Your task to perform on an android device: Go to calendar. Show me events next week Image 0: 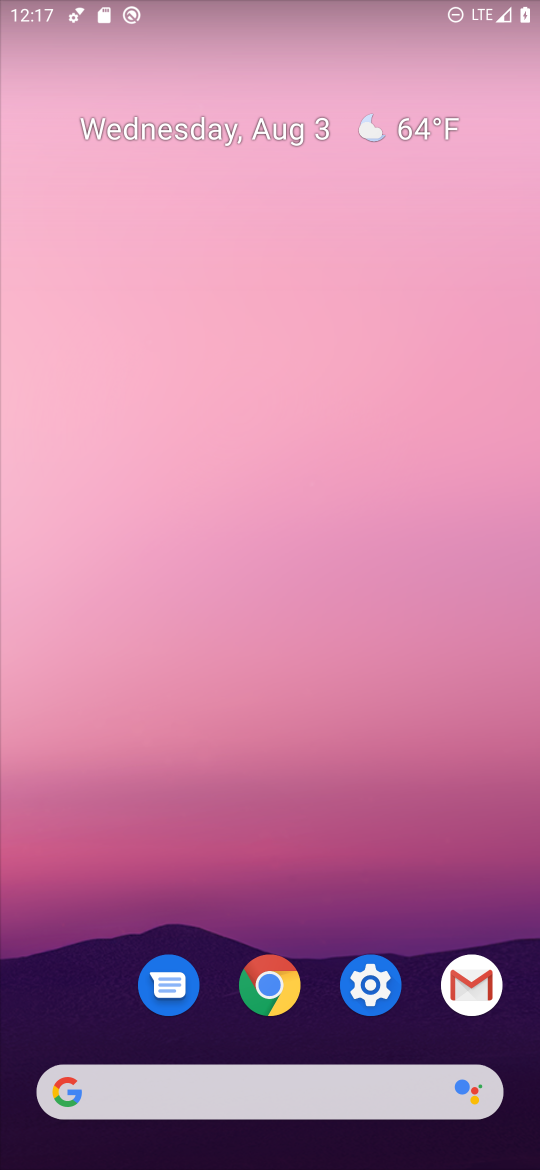
Step 0: press home button
Your task to perform on an android device: Go to calendar. Show me events next week Image 1: 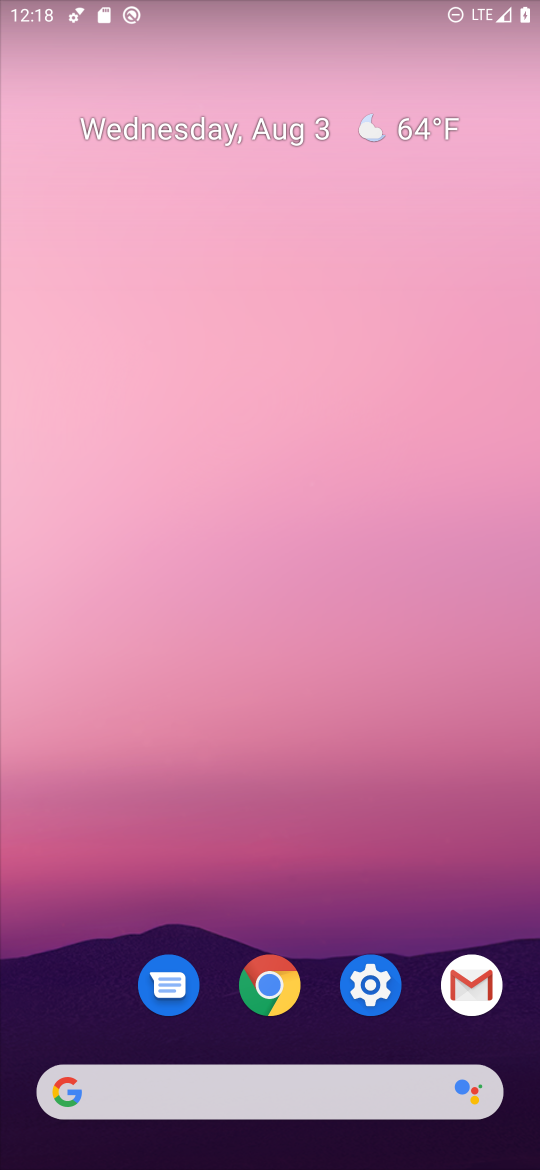
Step 1: drag from (350, 1122) to (334, 321)
Your task to perform on an android device: Go to calendar. Show me events next week Image 2: 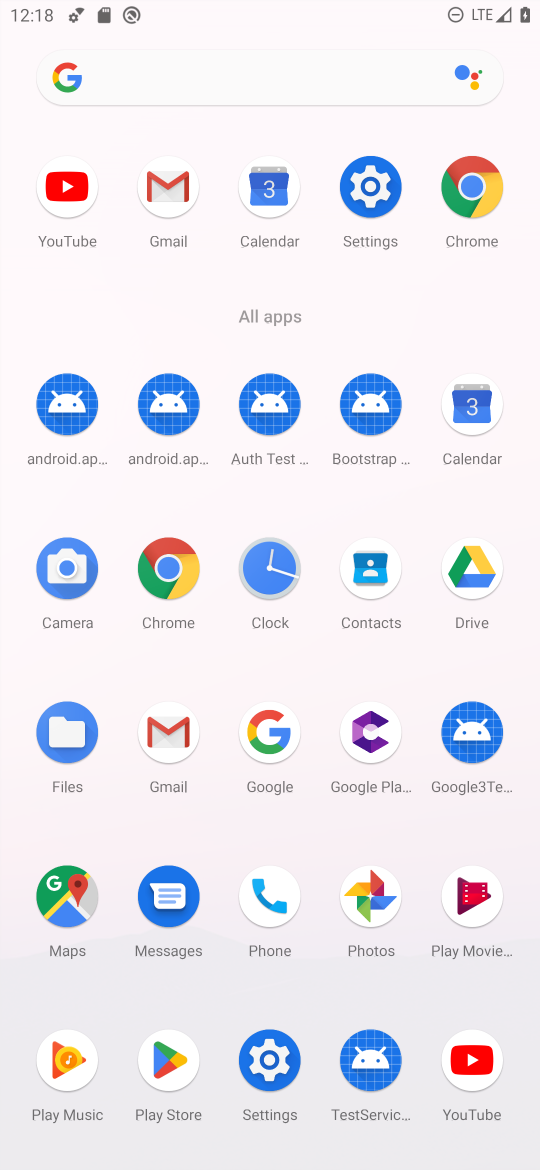
Step 2: click (472, 407)
Your task to perform on an android device: Go to calendar. Show me events next week Image 3: 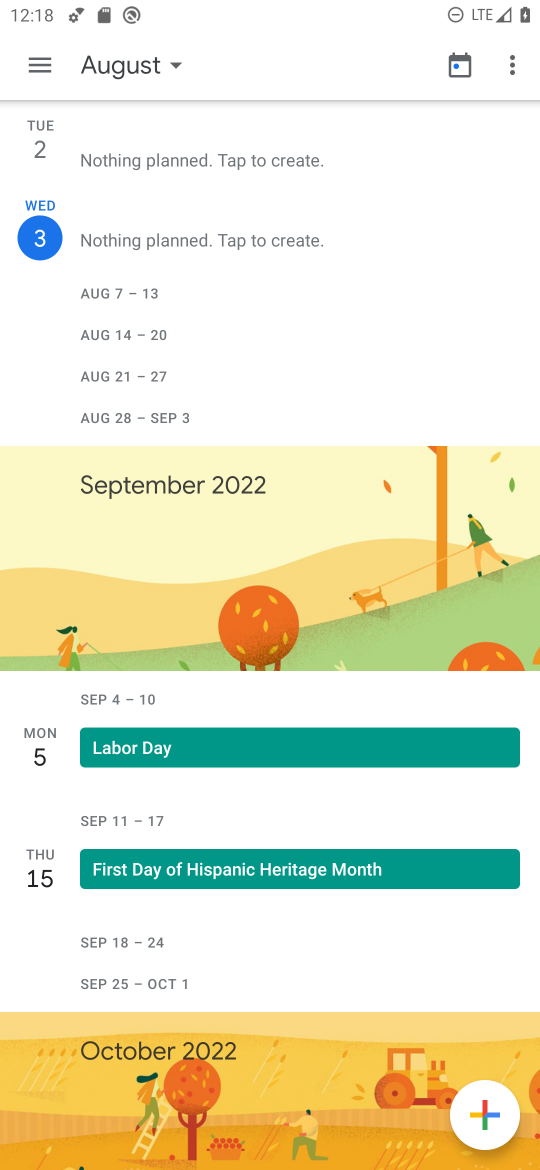
Step 3: click (37, 63)
Your task to perform on an android device: Go to calendar. Show me events next week Image 4: 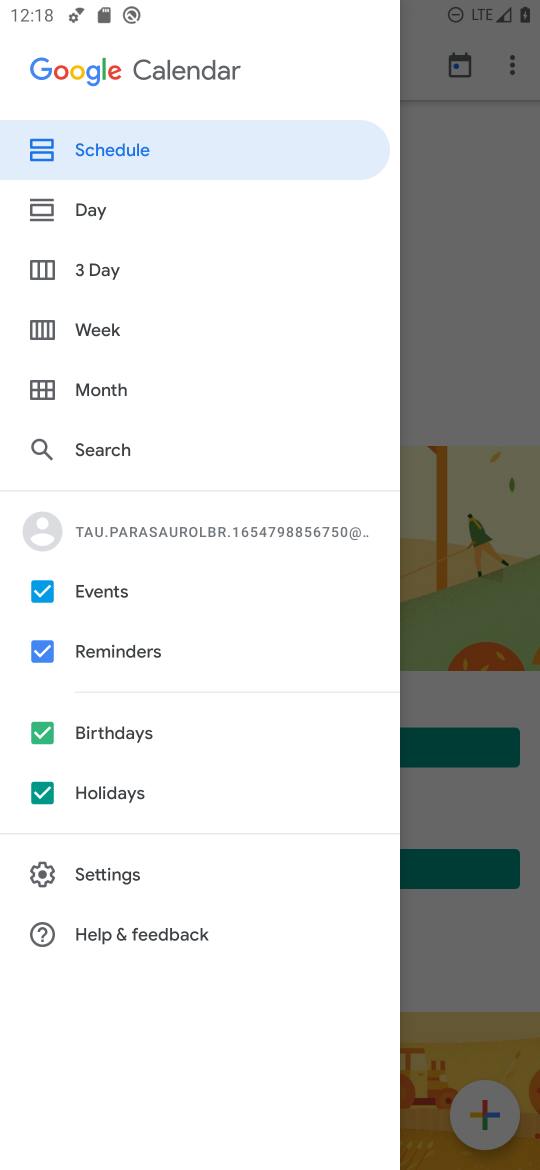
Step 4: click (91, 386)
Your task to perform on an android device: Go to calendar. Show me events next week Image 5: 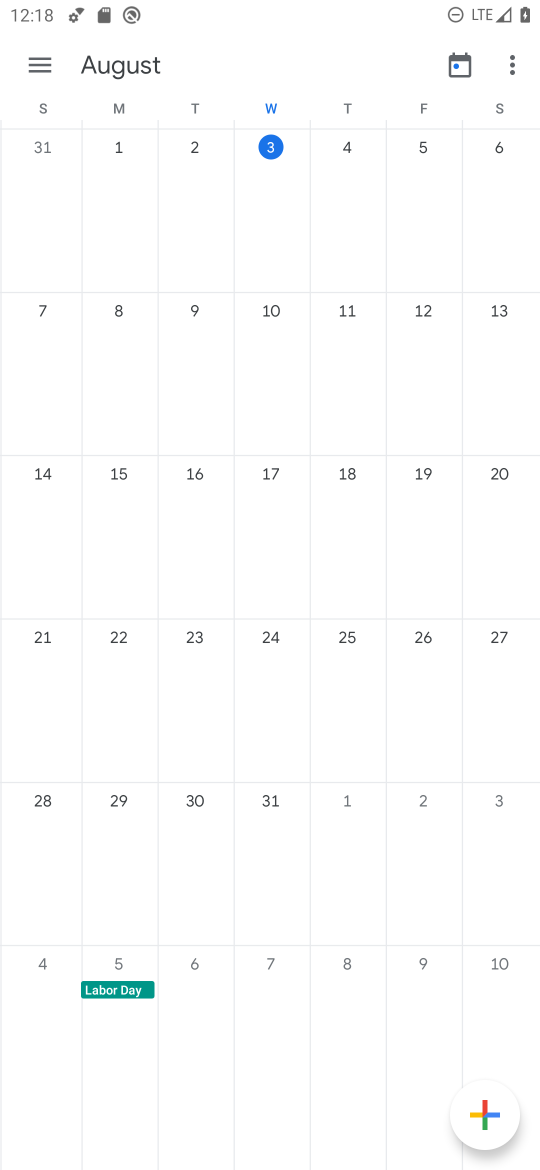
Step 5: click (113, 323)
Your task to perform on an android device: Go to calendar. Show me events next week Image 6: 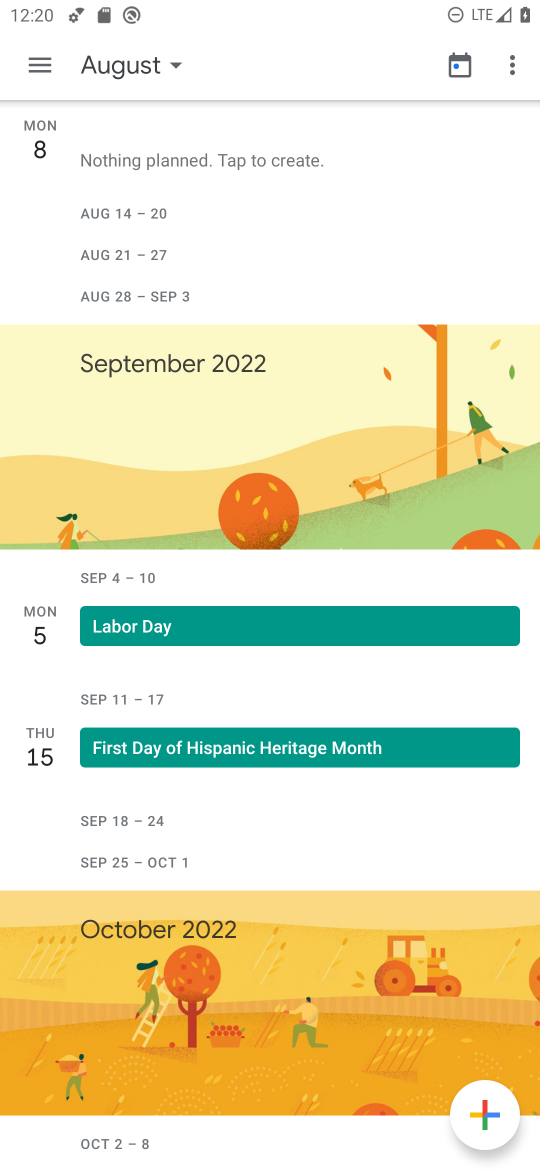
Step 6: task complete